Your task to perform on an android device: turn off priority inbox in the gmail app Image 0: 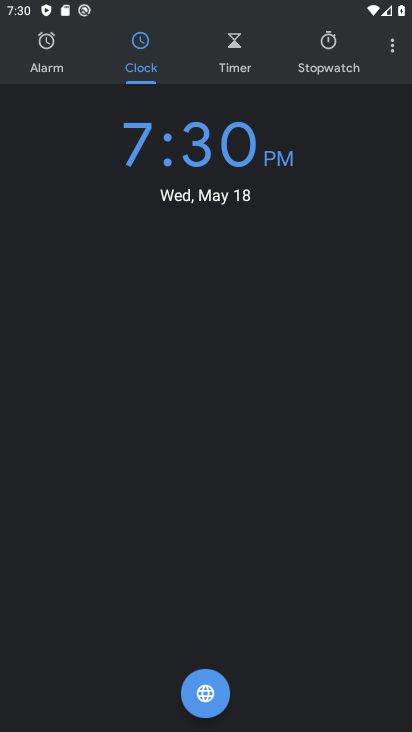
Step 0: press home button
Your task to perform on an android device: turn off priority inbox in the gmail app Image 1: 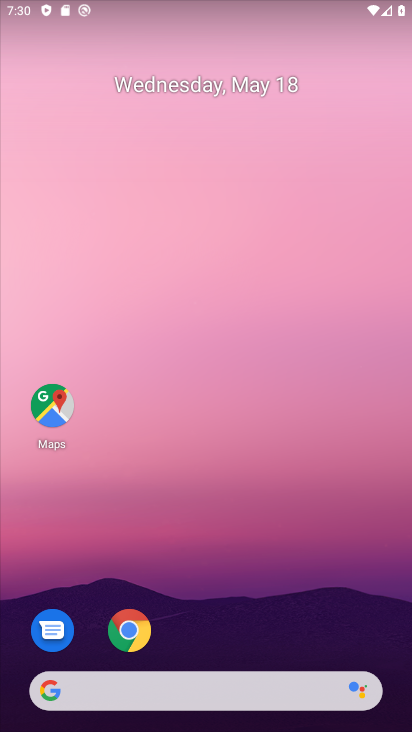
Step 1: drag from (276, 536) to (179, 107)
Your task to perform on an android device: turn off priority inbox in the gmail app Image 2: 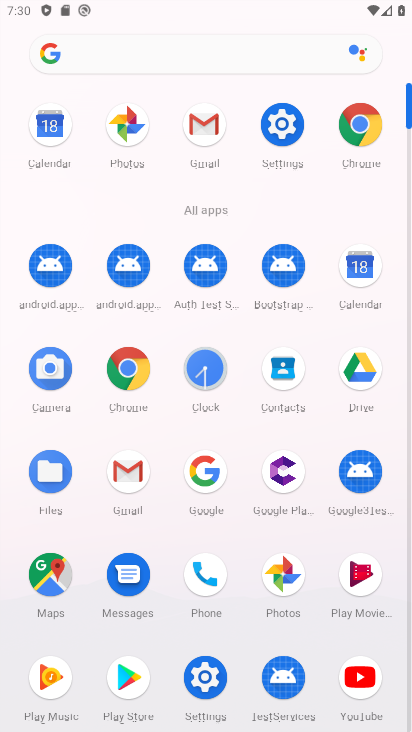
Step 2: click (201, 127)
Your task to perform on an android device: turn off priority inbox in the gmail app Image 3: 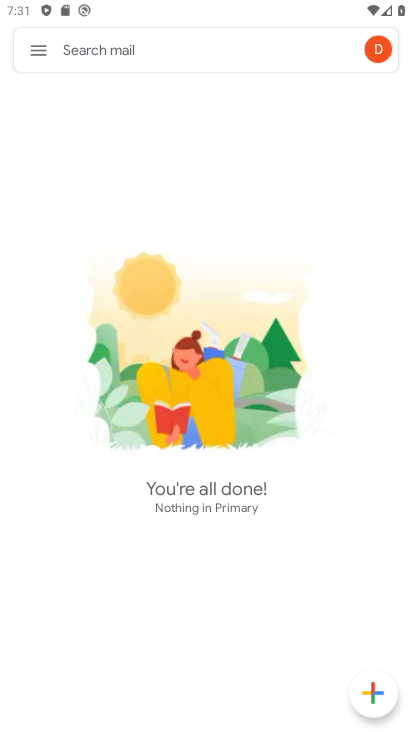
Step 3: click (35, 54)
Your task to perform on an android device: turn off priority inbox in the gmail app Image 4: 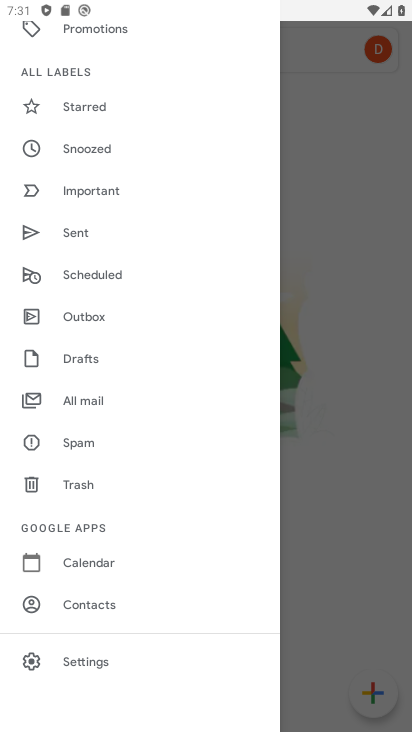
Step 4: click (82, 654)
Your task to perform on an android device: turn off priority inbox in the gmail app Image 5: 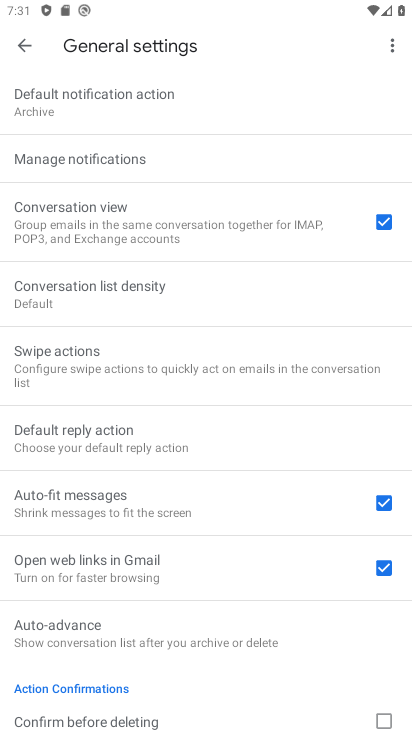
Step 5: click (16, 42)
Your task to perform on an android device: turn off priority inbox in the gmail app Image 6: 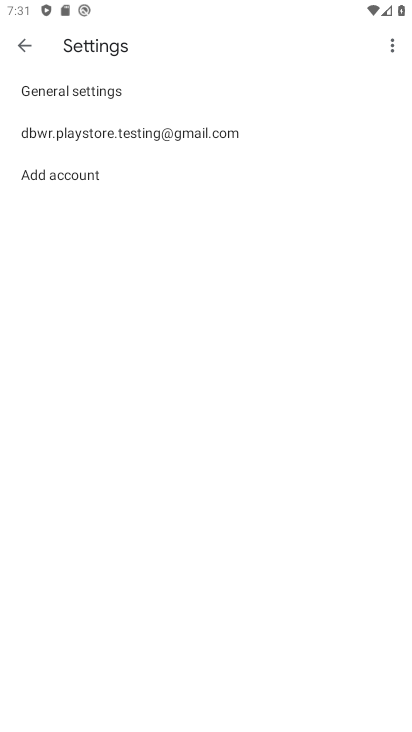
Step 6: click (65, 128)
Your task to perform on an android device: turn off priority inbox in the gmail app Image 7: 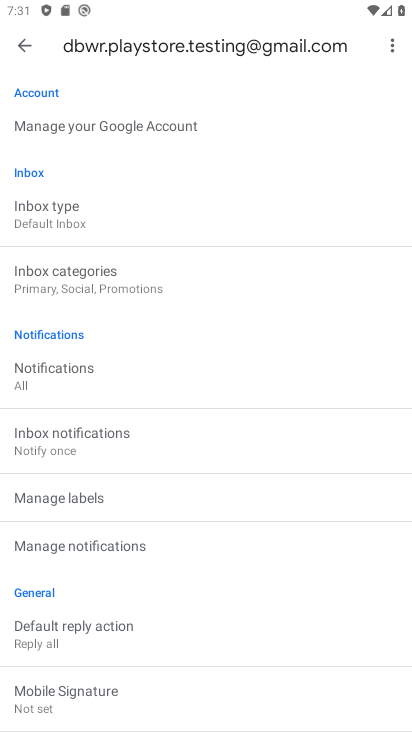
Step 7: click (54, 208)
Your task to perform on an android device: turn off priority inbox in the gmail app Image 8: 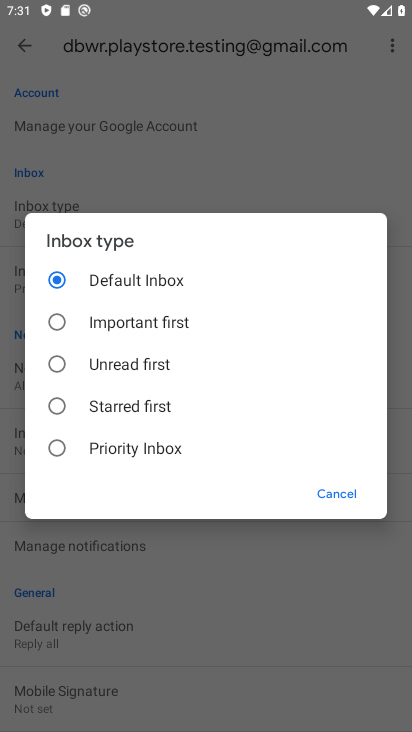
Step 8: task complete